Your task to perform on an android device: Search for pizza restaurants on Maps Image 0: 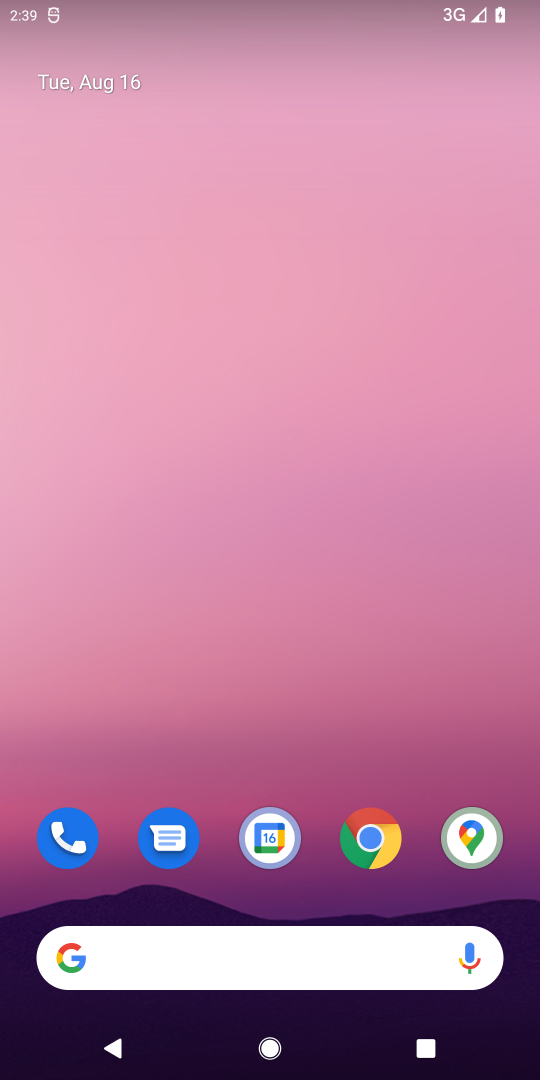
Step 0: press home button
Your task to perform on an android device: Search for pizza restaurants on Maps Image 1: 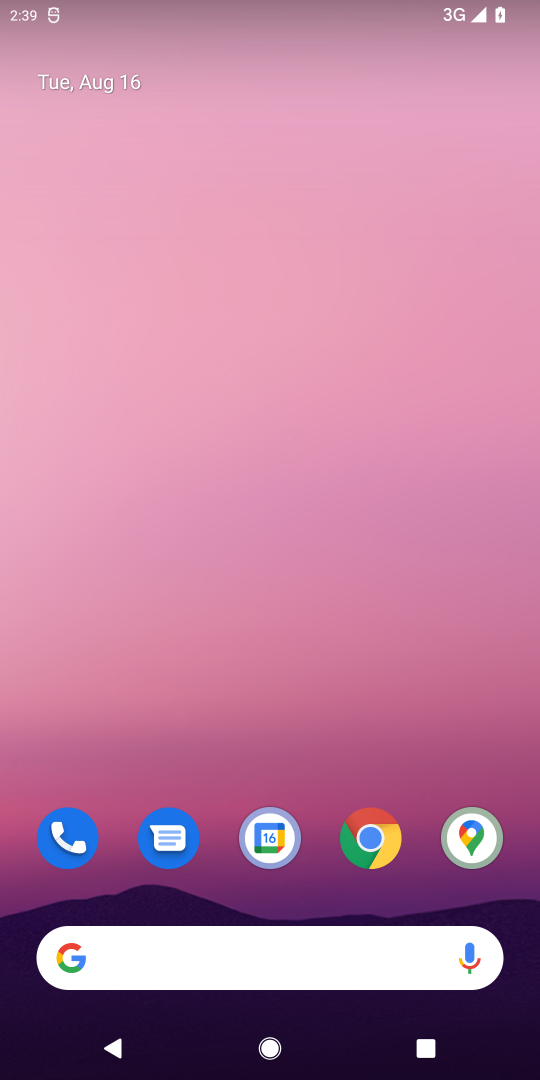
Step 1: click (471, 837)
Your task to perform on an android device: Search for pizza restaurants on Maps Image 2: 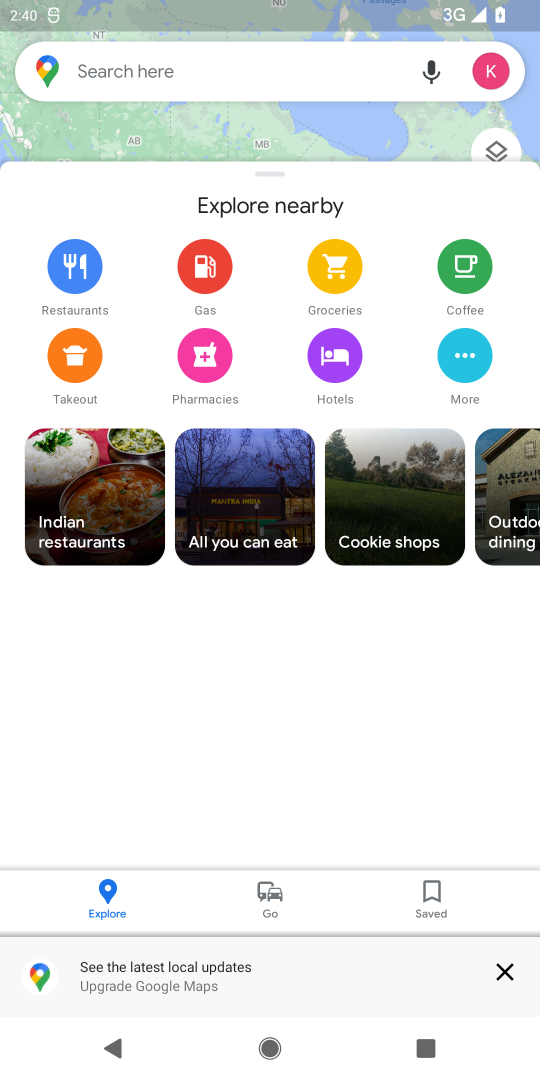
Step 2: click (152, 73)
Your task to perform on an android device: Search for pizza restaurants on Maps Image 3: 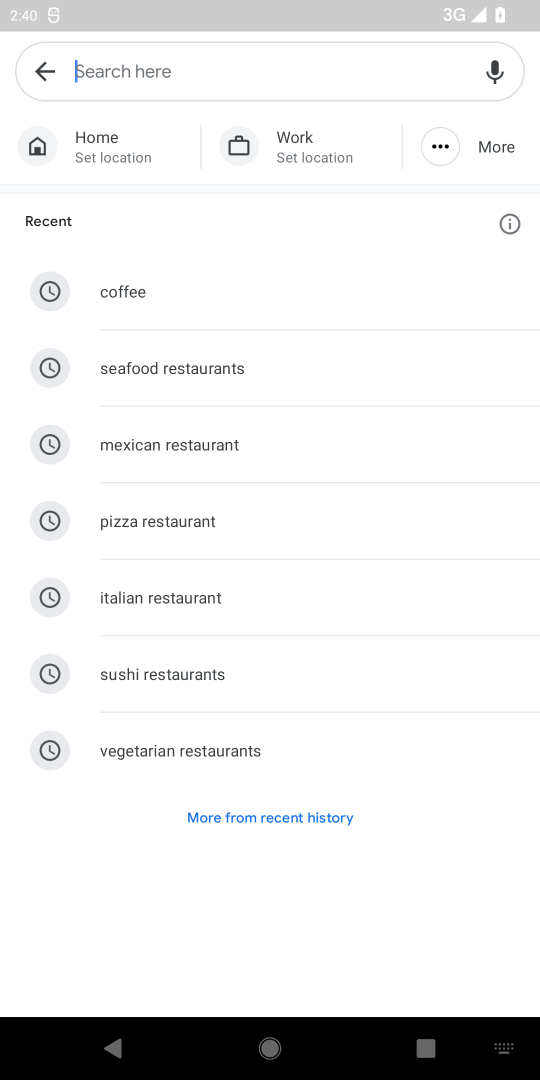
Step 3: click (179, 520)
Your task to perform on an android device: Search for pizza restaurants on Maps Image 4: 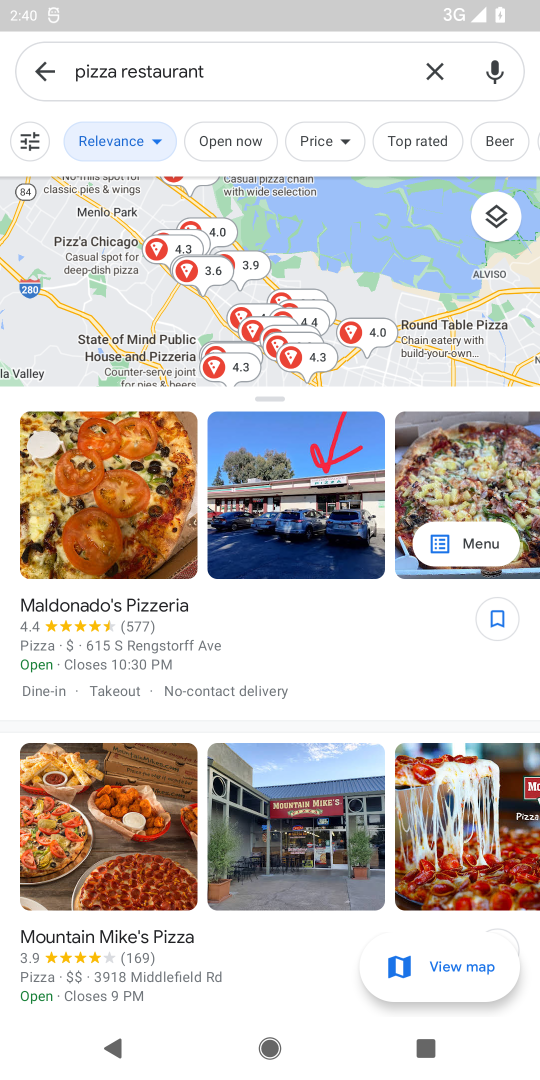
Step 4: task complete